Your task to perform on an android device: see sites visited before in the chrome app Image 0: 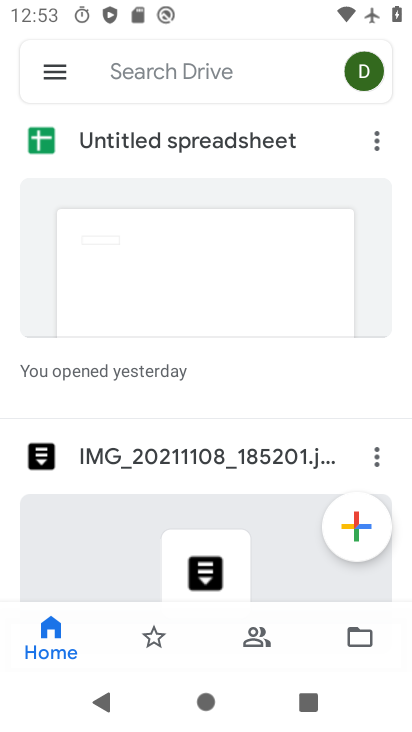
Step 0: press home button
Your task to perform on an android device: see sites visited before in the chrome app Image 1: 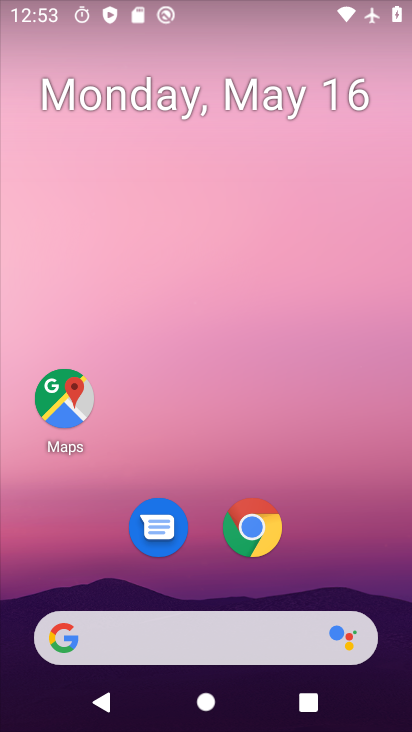
Step 1: drag from (143, 632) to (287, 144)
Your task to perform on an android device: see sites visited before in the chrome app Image 2: 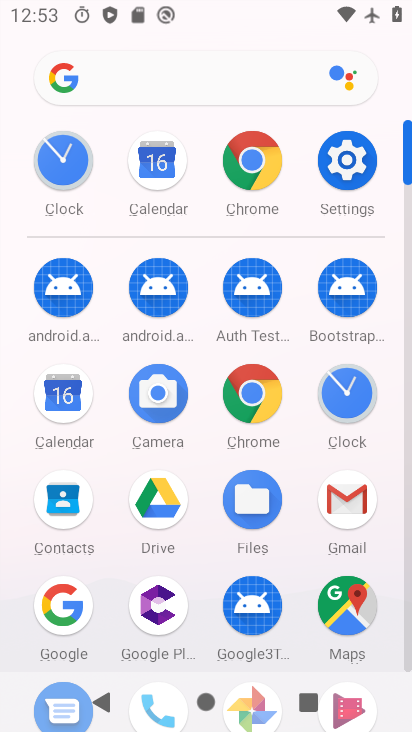
Step 2: click (263, 165)
Your task to perform on an android device: see sites visited before in the chrome app Image 3: 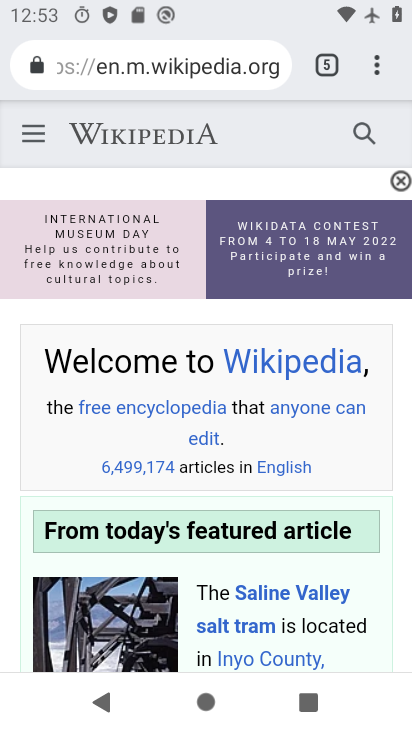
Step 3: task complete